Your task to perform on an android device: open app "Google Maps" (install if not already installed) Image 0: 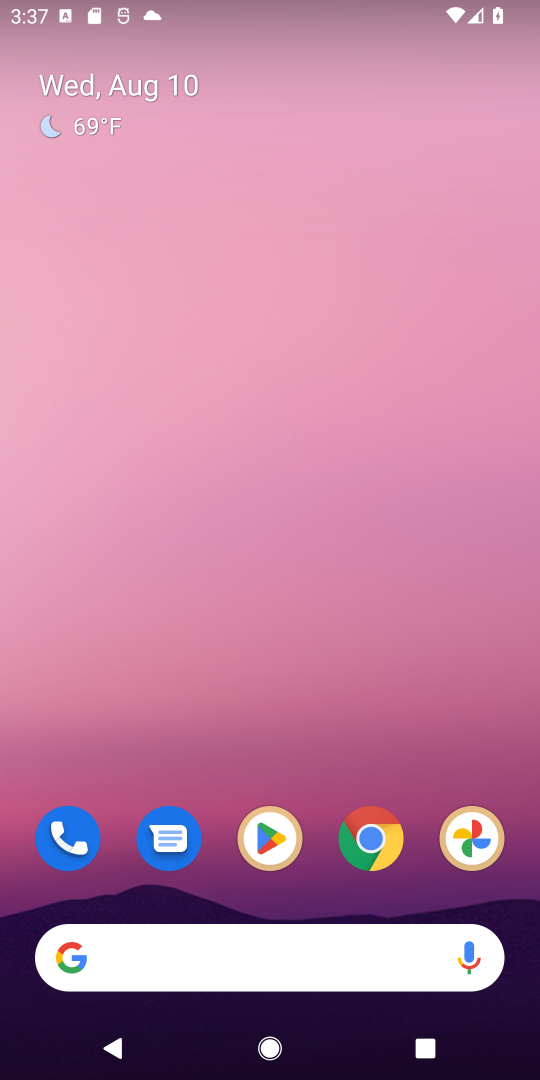
Step 0: press home button
Your task to perform on an android device: open app "Google Maps" (install if not already installed) Image 1: 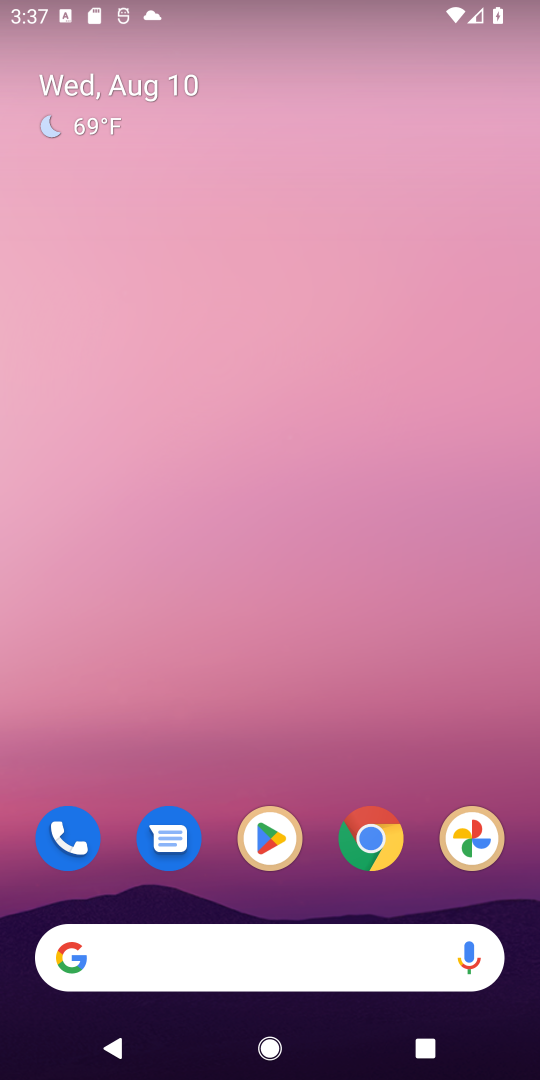
Step 1: click (274, 843)
Your task to perform on an android device: open app "Google Maps" (install if not already installed) Image 2: 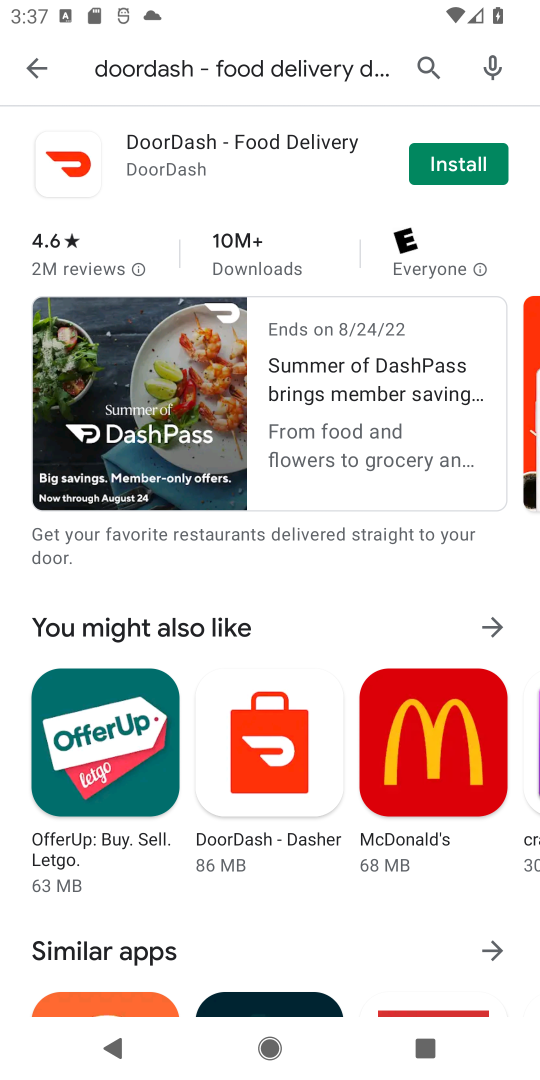
Step 2: click (426, 67)
Your task to perform on an android device: open app "Google Maps" (install if not already installed) Image 3: 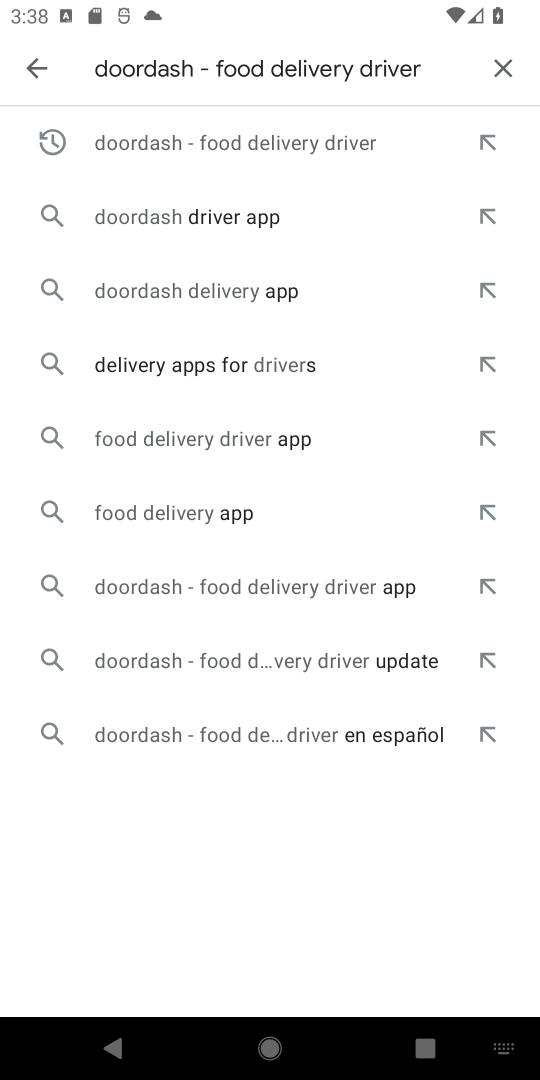
Step 3: click (502, 68)
Your task to perform on an android device: open app "Google Maps" (install if not already installed) Image 4: 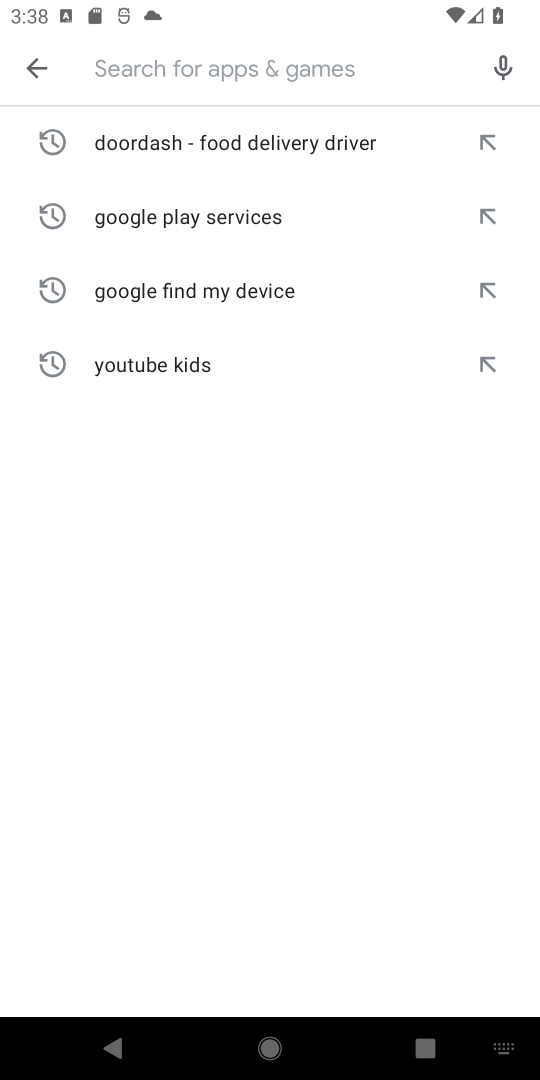
Step 4: type "Google Maps"
Your task to perform on an android device: open app "Google Maps" (install if not already installed) Image 5: 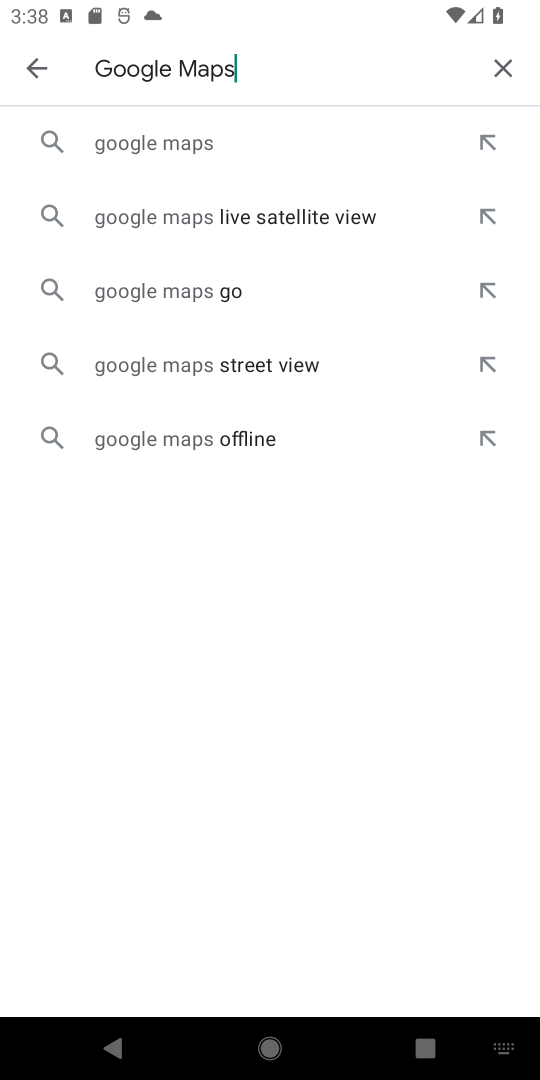
Step 5: click (196, 141)
Your task to perform on an android device: open app "Google Maps" (install if not already installed) Image 6: 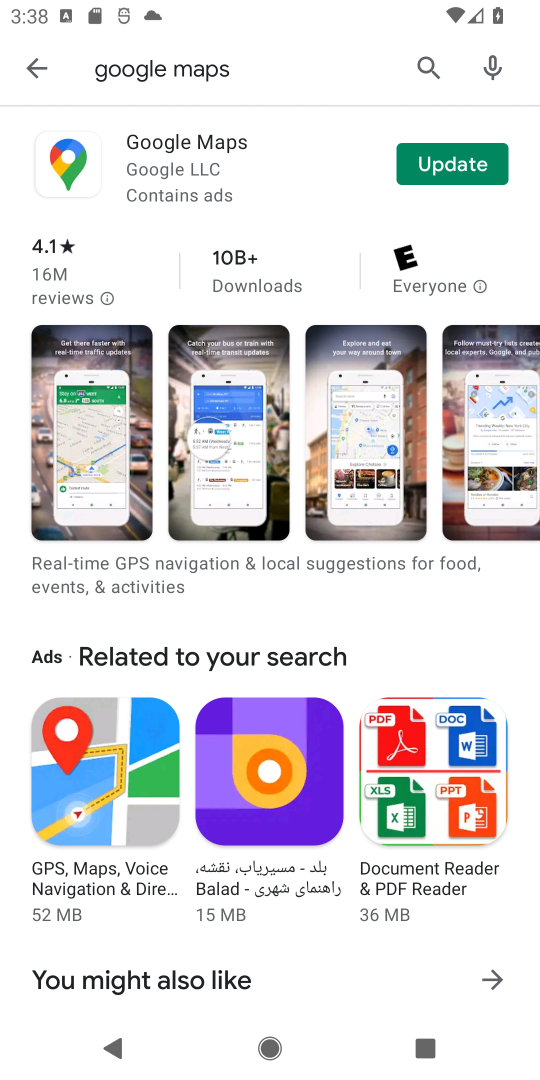
Step 6: click (190, 179)
Your task to perform on an android device: open app "Google Maps" (install if not already installed) Image 7: 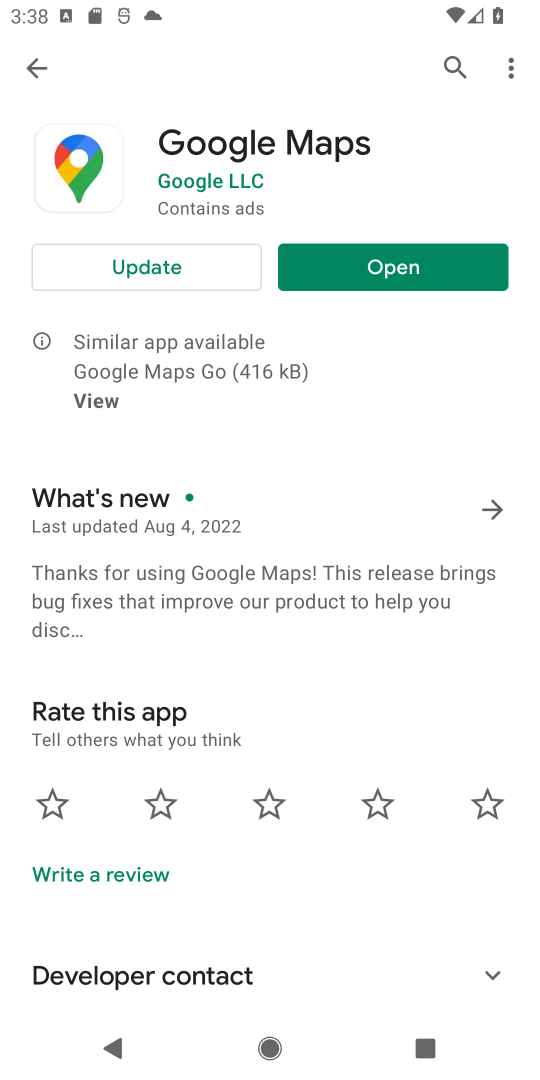
Step 7: click (404, 264)
Your task to perform on an android device: open app "Google Maps" (install if not already installed) Image 8: 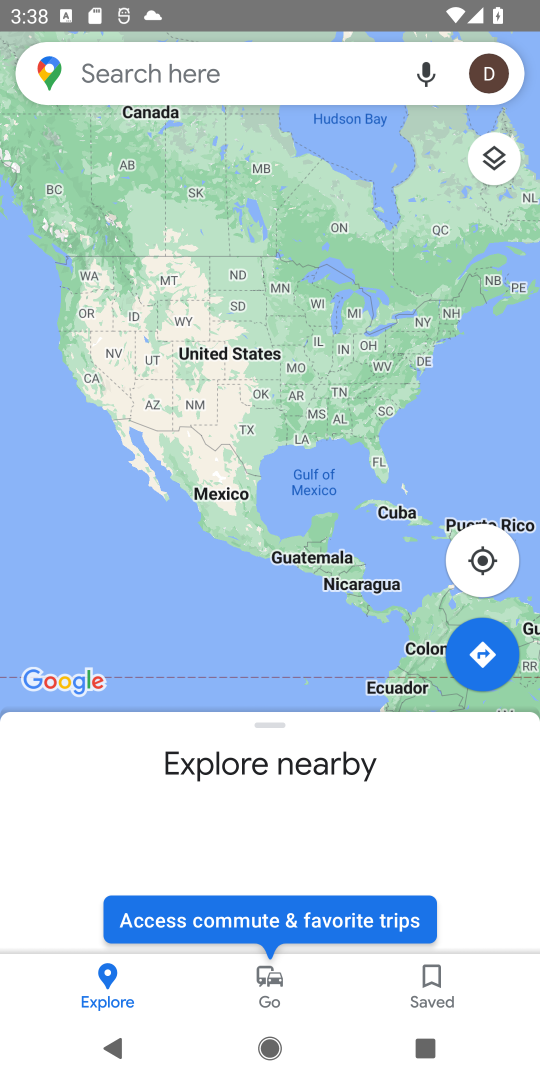
Step 8: task complete